Your task to perform on an android device: turn off javascript in the chrome app Image 0: 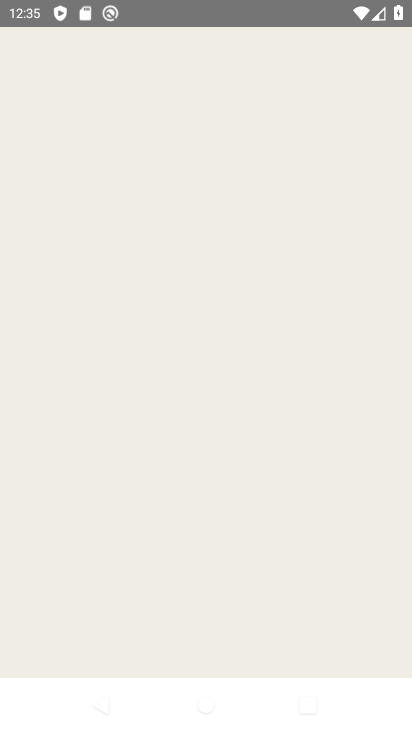
Step 0: drag from (208, 682) to (203, 126)
Your task to perform on an android device: turn off javascript in the chrome app Image 1: 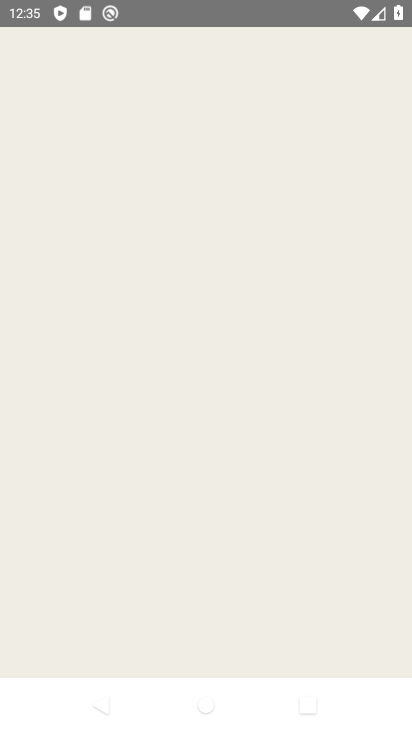
Step 1: press home button
Your task to perform on an android device: turn off javascript in the chrome app Image 2: 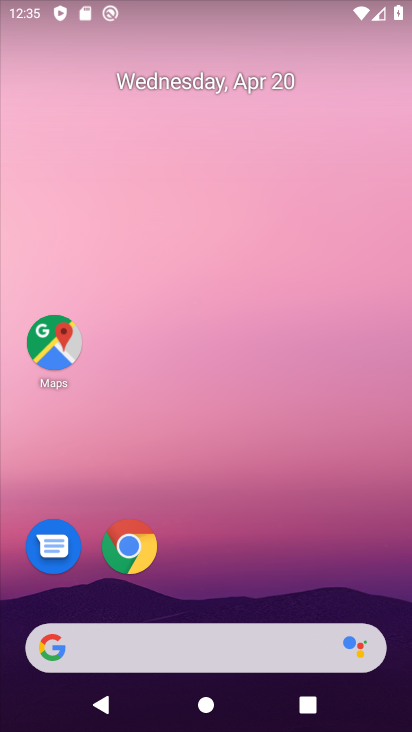
Step 2: click (129, 543)
Your task to perform on an android device: turn off javascript in the chrome app Image 3: 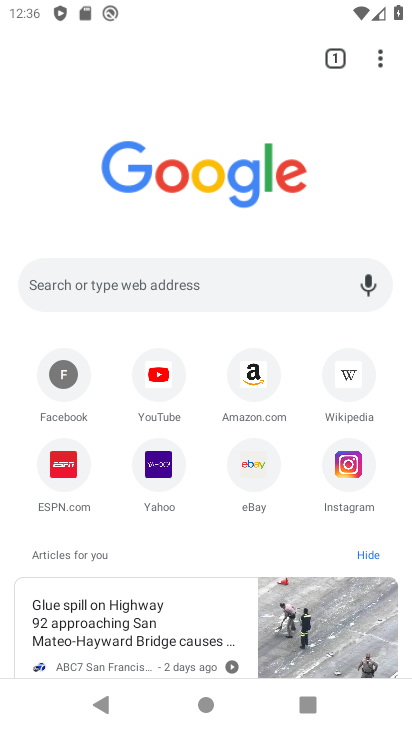
Step 3: drag from (379, 57) to (247, 497)
Your task to perform on an android device: turn off javascript in the chrome app Image 4: 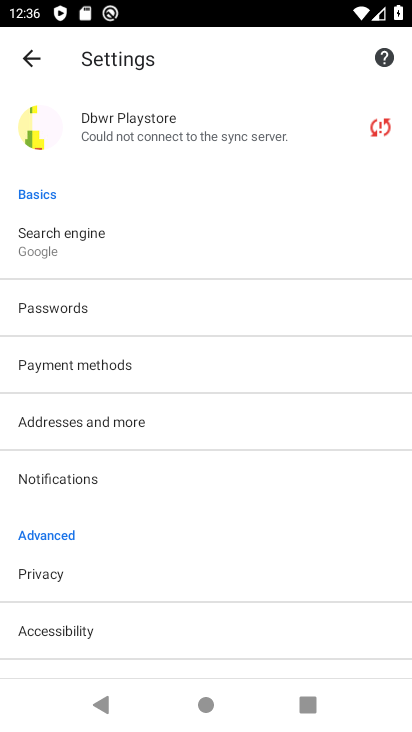
Step 4: drag from (160, 625) to (158, 213)
Your task to perform on an android device: turn off javascript in the chrome app Image 5: 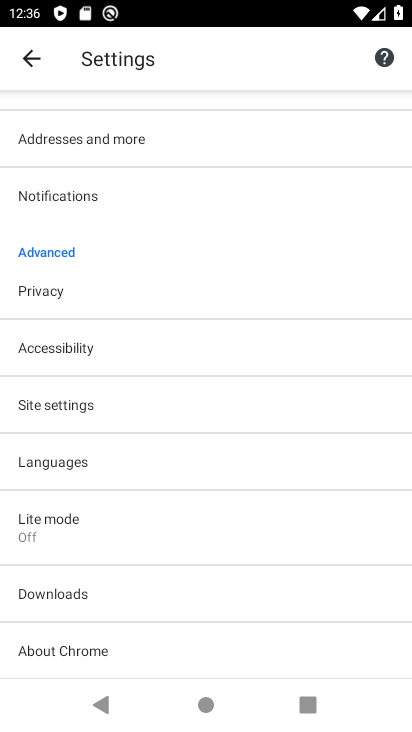
Step 5: click (74, 405)
Your task to perform on an android device: turn off javascript in the chrome app Image 6: 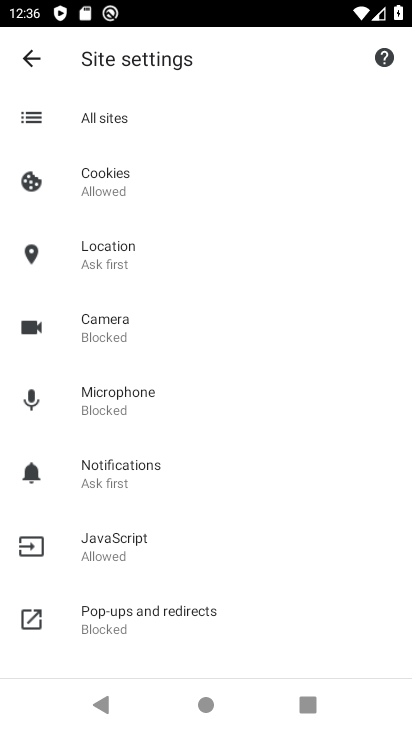
Step 6: click (107, 538)
Your task to perform on an android device: turn off javascript in the chrome app Image 7: 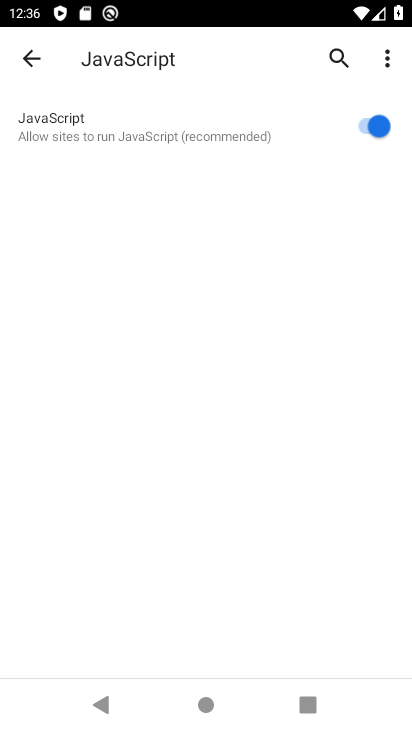
Step 7: click (366, 123)
Your task to perform on an android device: turn off javascript in the chrome app Image 8: 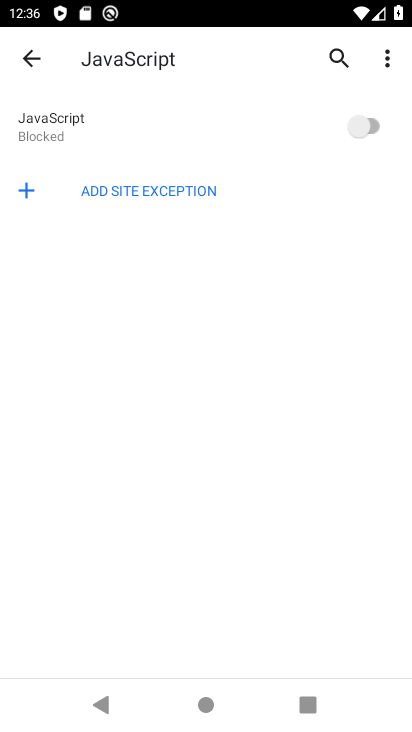
Step 8: task complete